Your task to perform on an android device: Open maps Image 0: 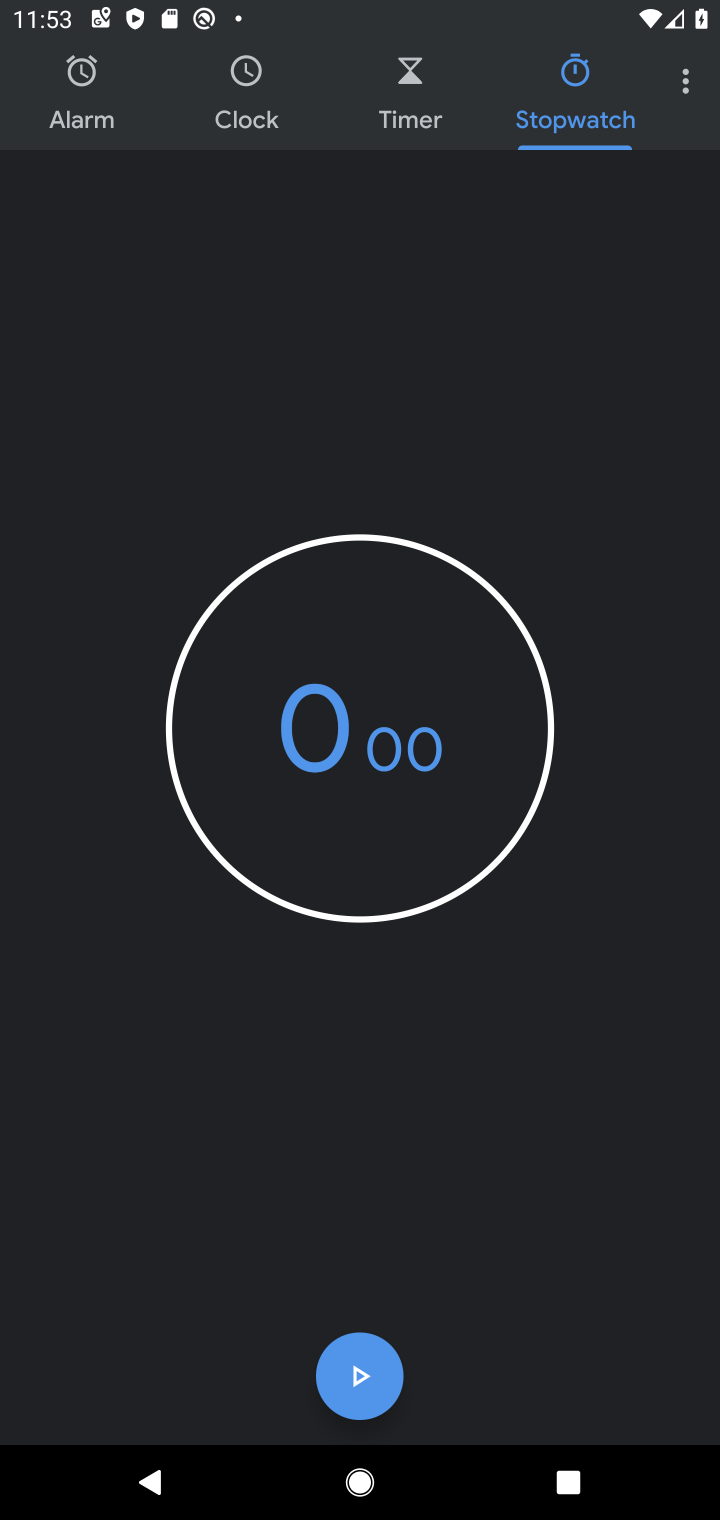
Step 0: press back button
Your task to perform on an android device: Open maps Image 1: 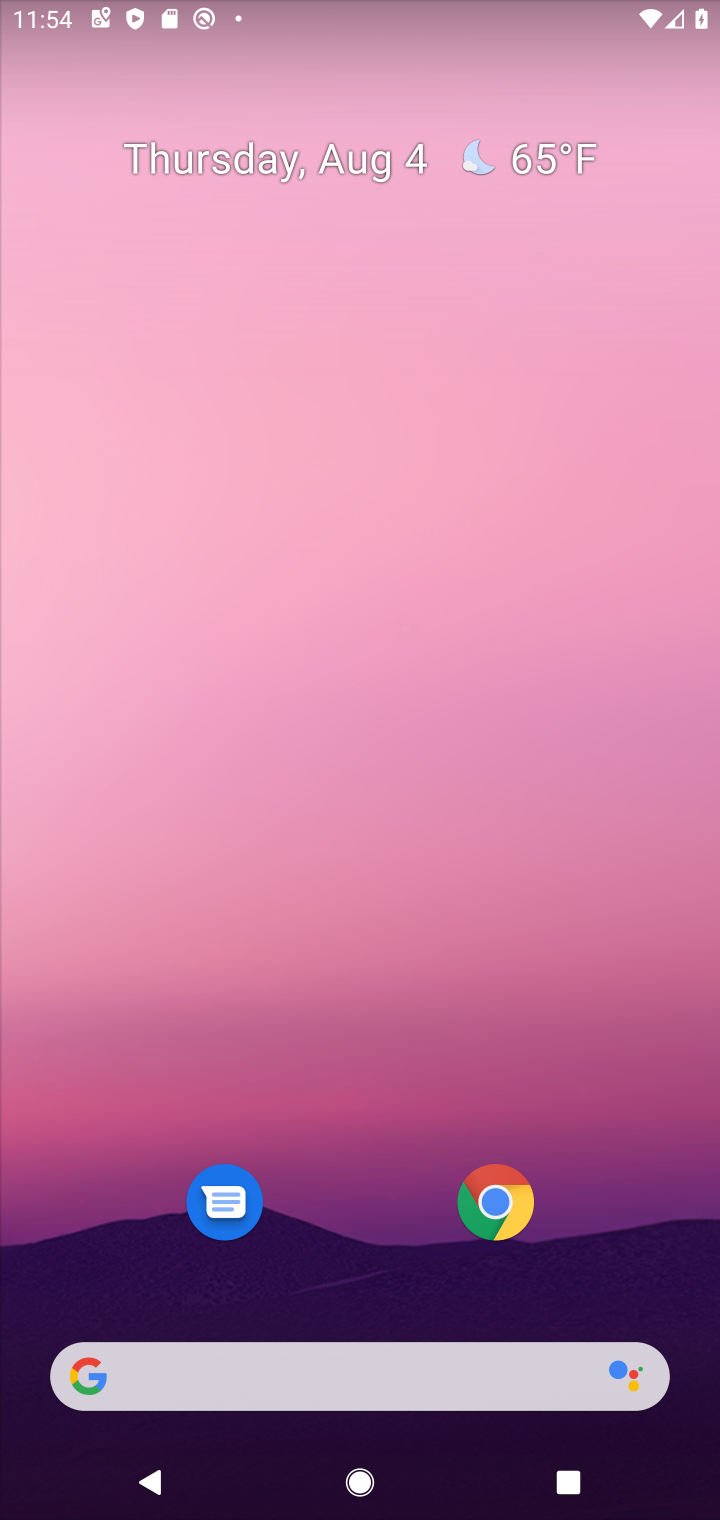
Step 1: drag from (301, 1291) to (497, 11)
Your task to perform on an android device: Open maps Image 2: 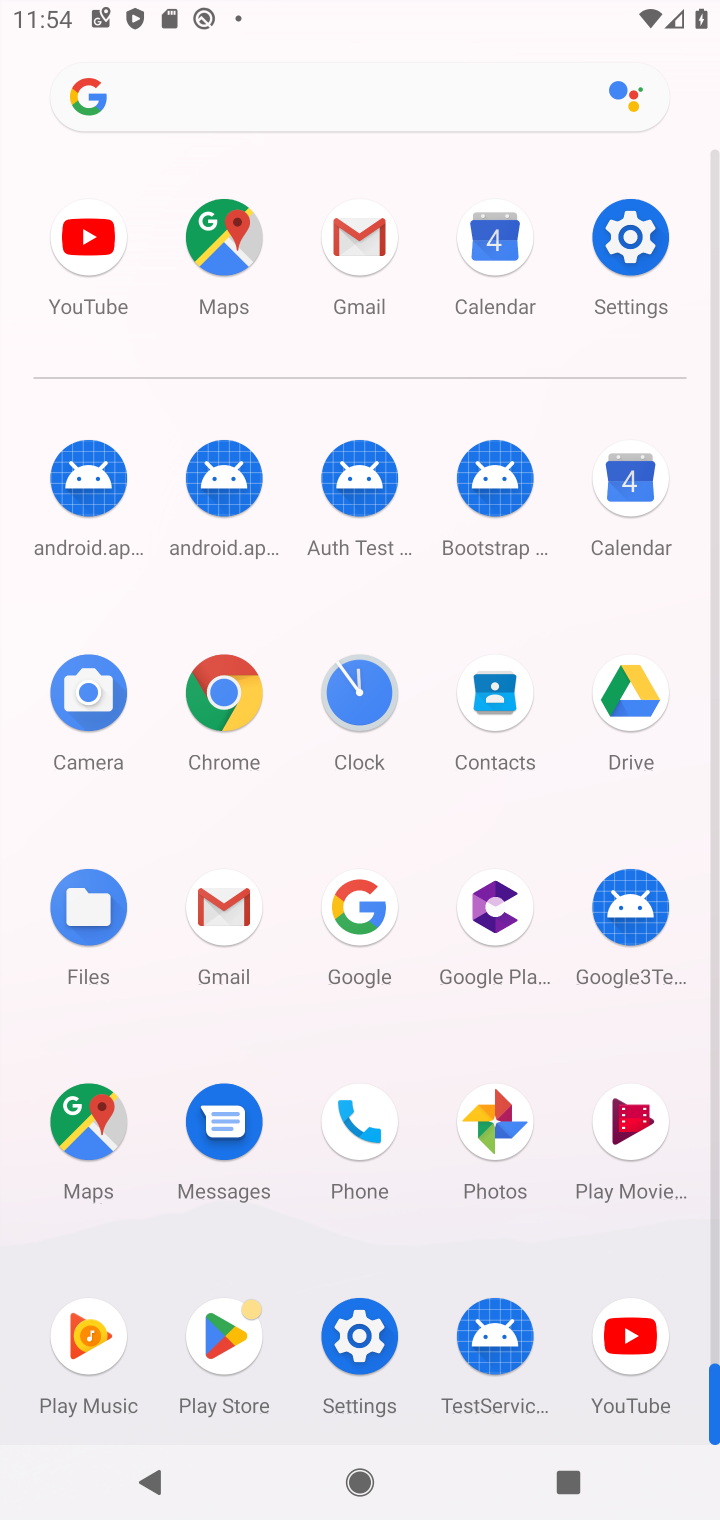
Step 2: click (205, 247)
Your task to perform on an android device: Open maps Image 3: 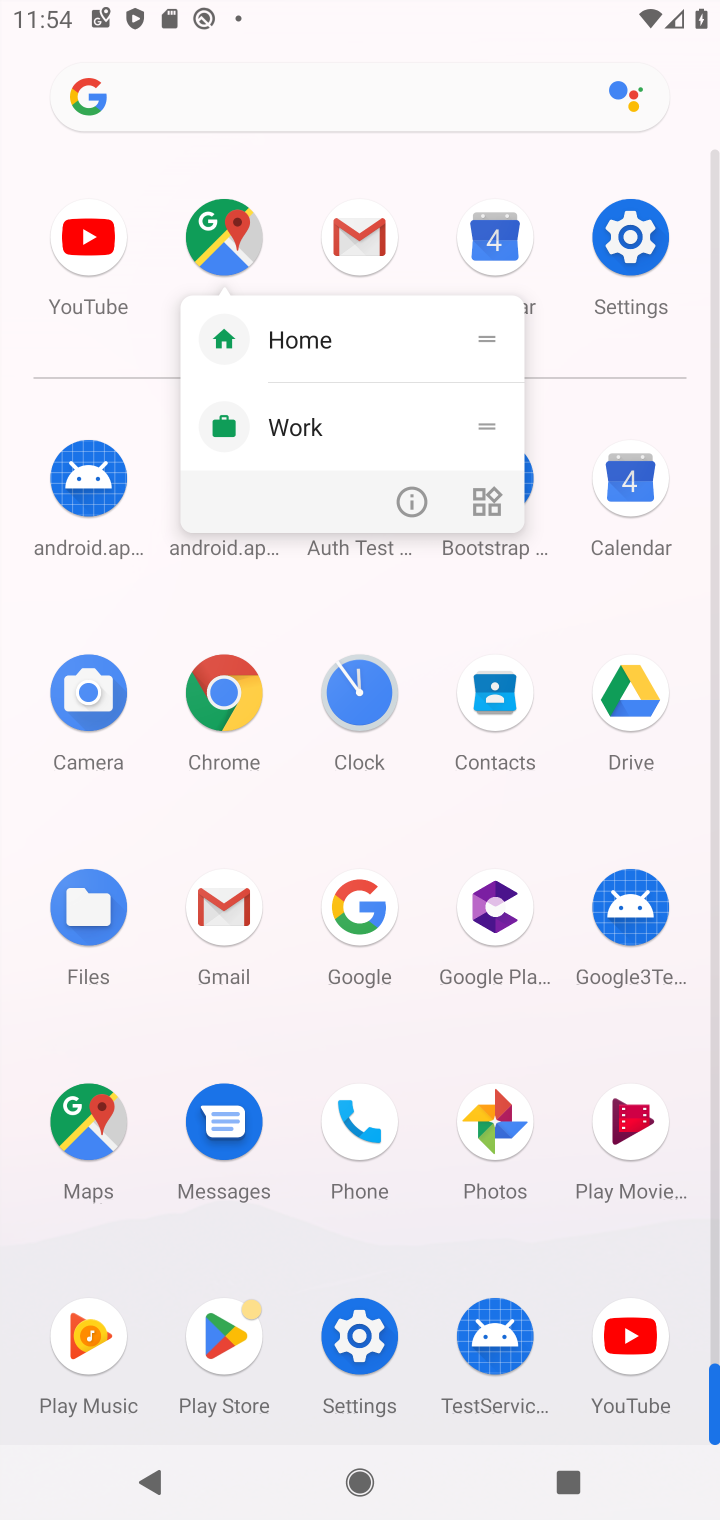
Step 3: click (214, 229)
Your task to perform on an android device: Open maps Image 4: 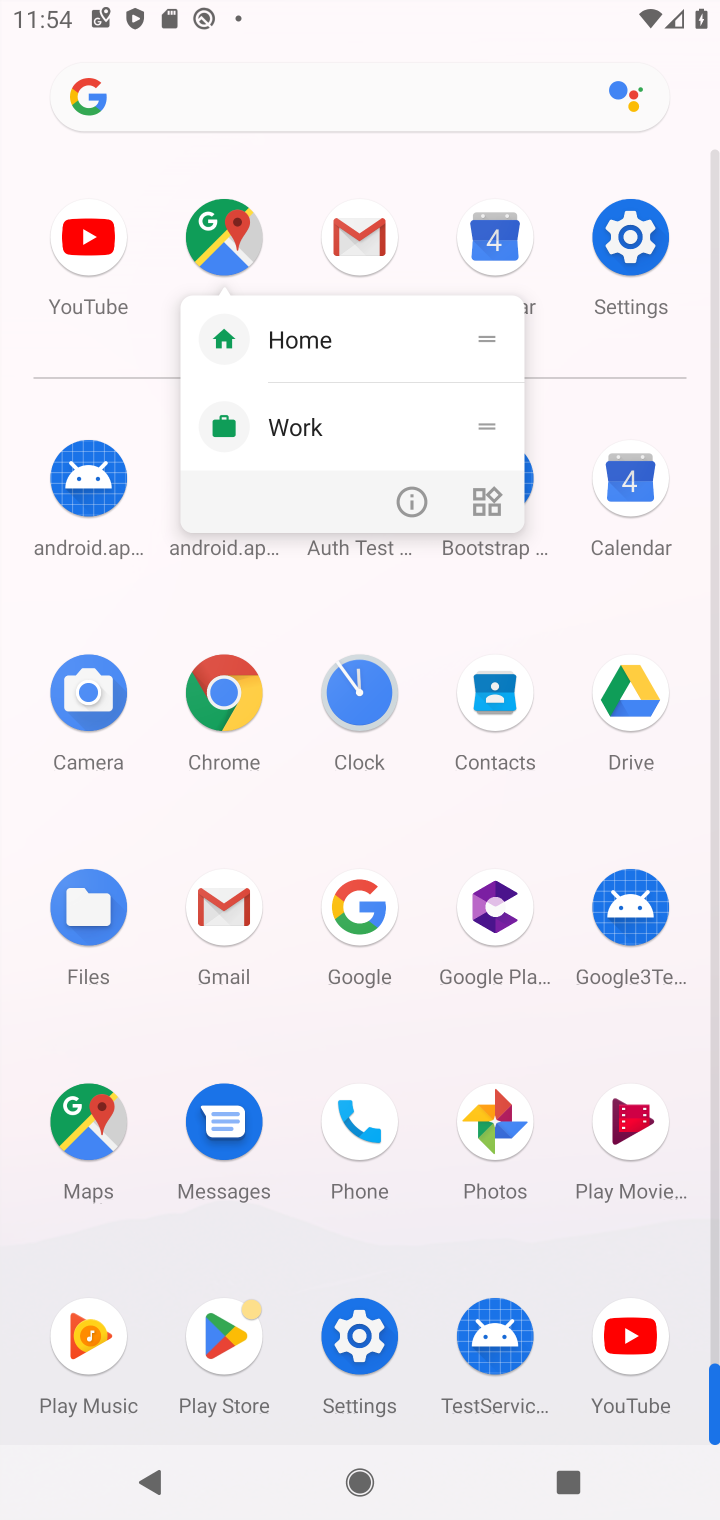
Step 4: click (216, 227)
Your task to perform on an android device: Open maps Image 5: 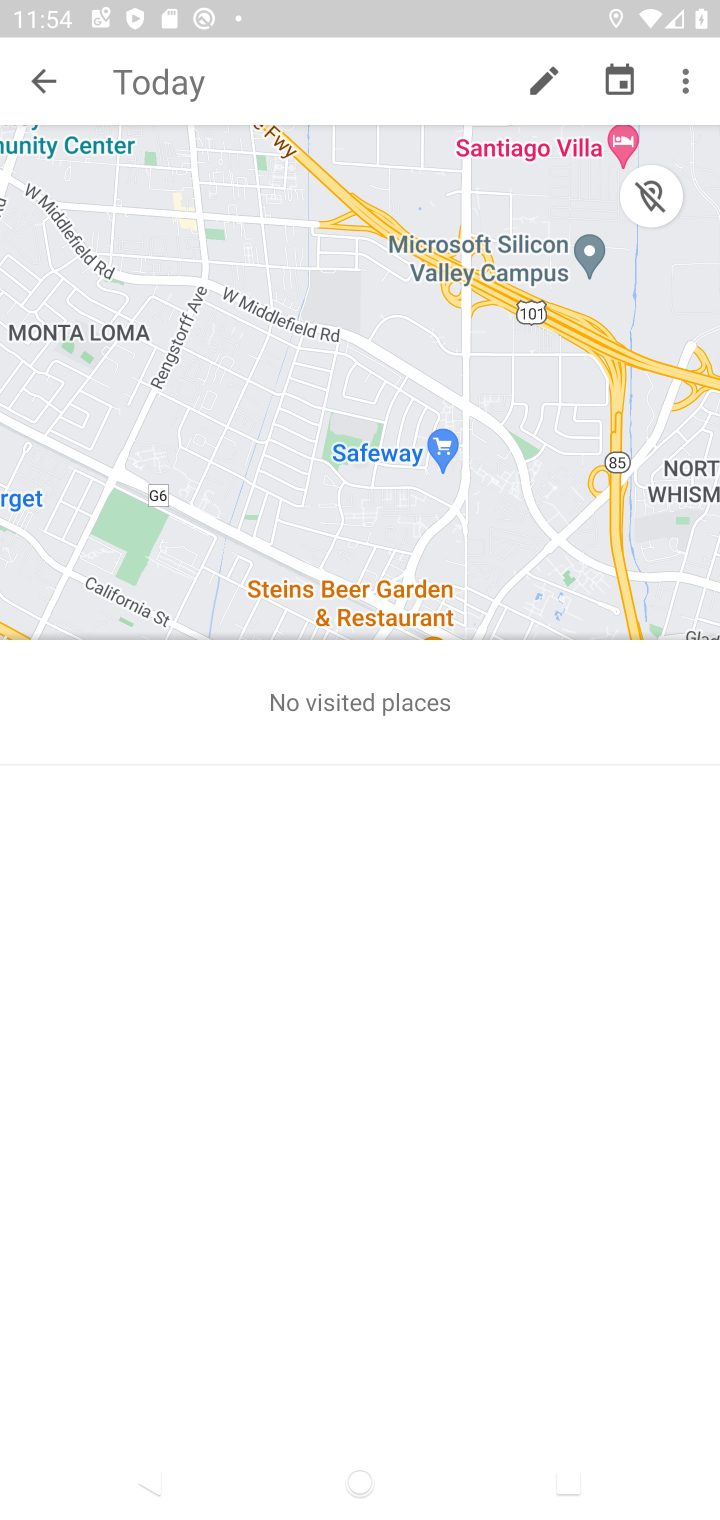
Step 5: task complete